Your task to perform on an android device: toggle wifi Image 0: 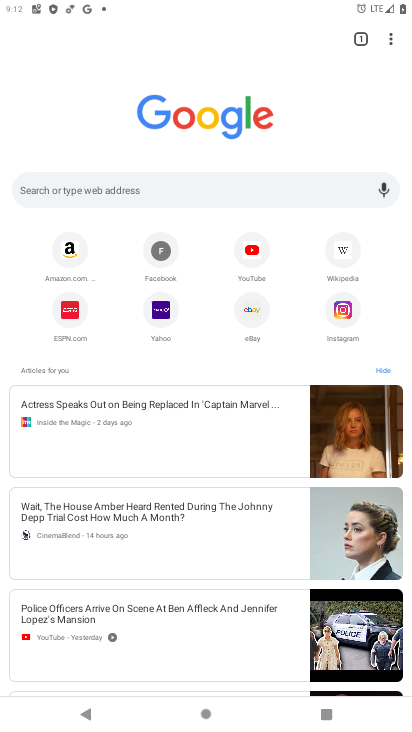
Step 0: press home button
Your task to perform on an android device: toggle wifi Image 1: 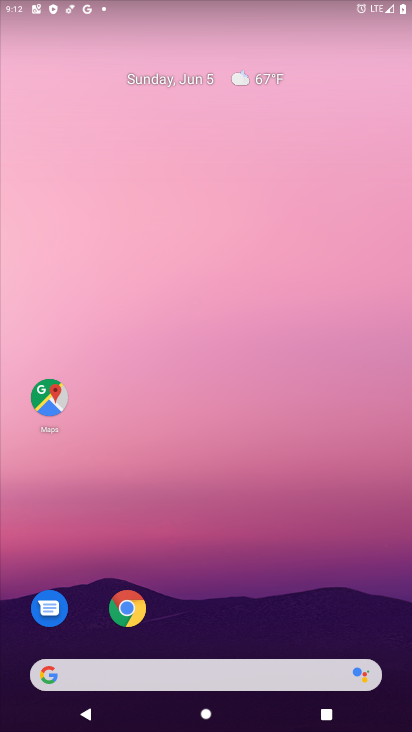
Step 1: drag from (186, 1) to (129, 428)
Your task to perform on an android device: toggle wifi Image 2: 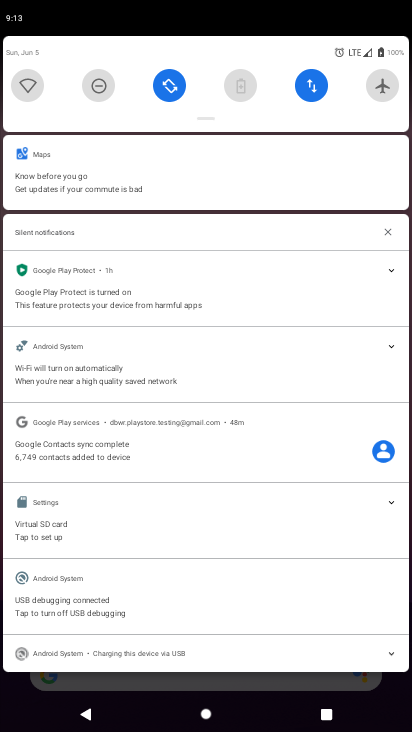
Step 2: click (31, 93)
Your task to perform on an android device: toggle wifi Image 3: 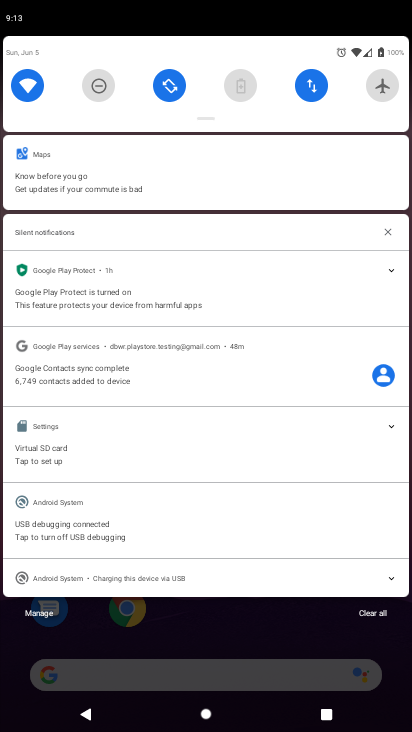
Step 3: task complete